Your task to perform on an android device: Is it going to rain this weekend? Image 0: 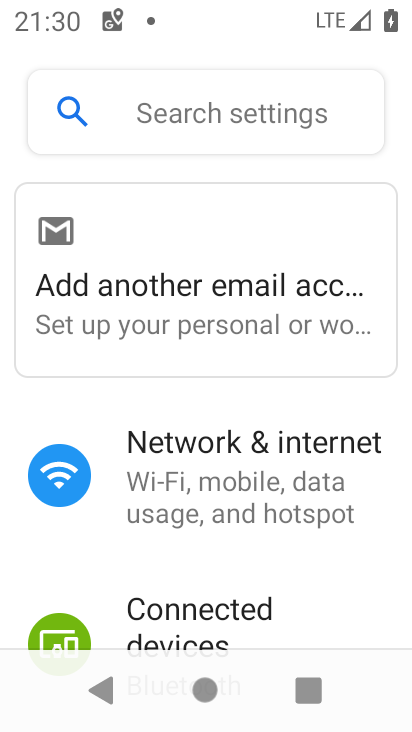
Step 0: press home button
Your task to perform on an android device: Is it going to rain this weekend? Image 1: 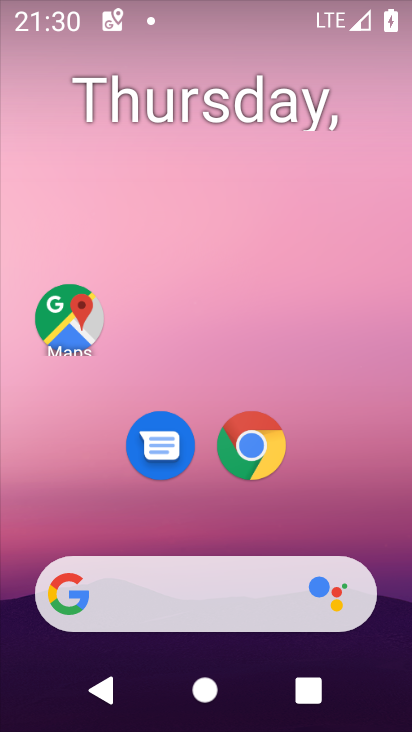
Step 1: drag from (197, 509) to (114, 5)
Your task to perform on an android device: Is it going to rain this weekend? Image 2: 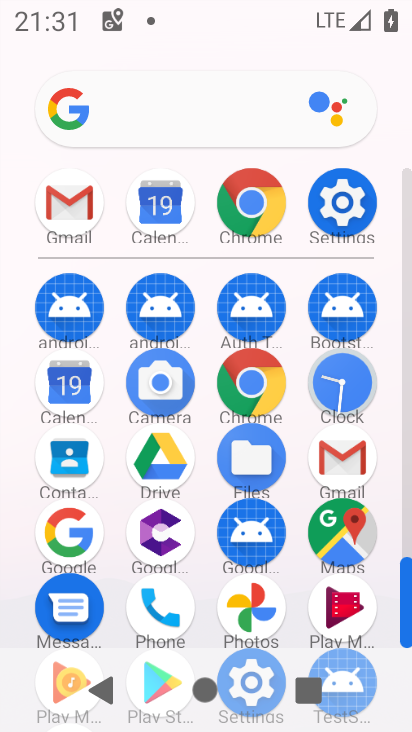
Step 2: click (153, 116)
Your task to perform on an android device: Is it going to rain this weekend? Image 3: 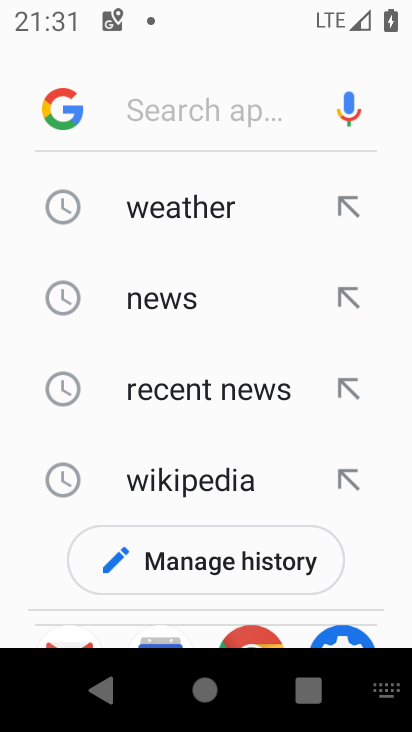
Step 3: type "rain this weekend?"
Your task to perform on an android device: Is it going to rain this weekend? Image 4: 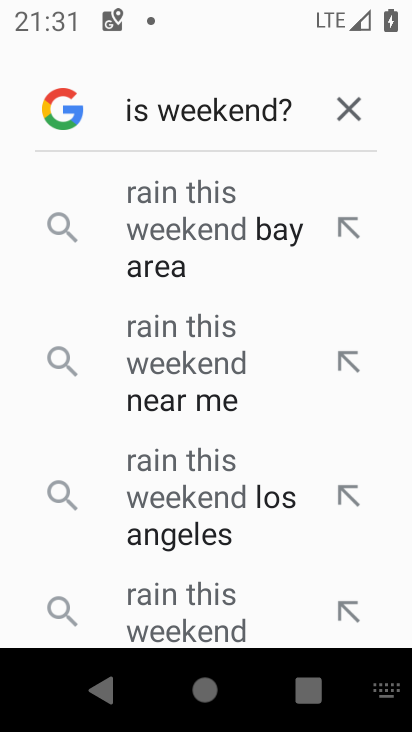
Step 4: click (219, 212)
Your task to perform on an android device: Is it going to rain this weekend? Image 5: 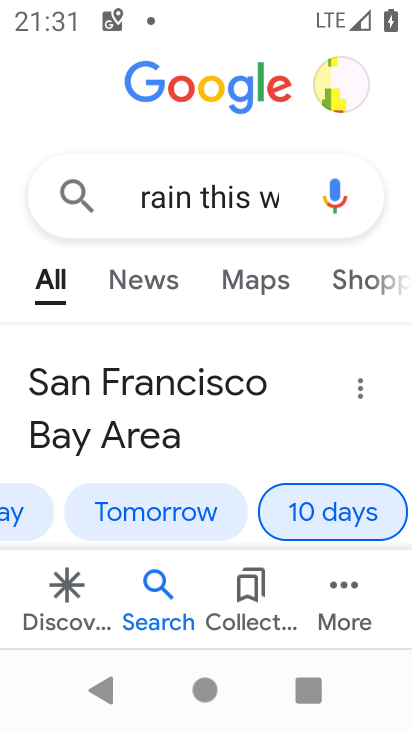
Step 5: task complete